Your task to perform on an android device: Open internet settings Image 0: 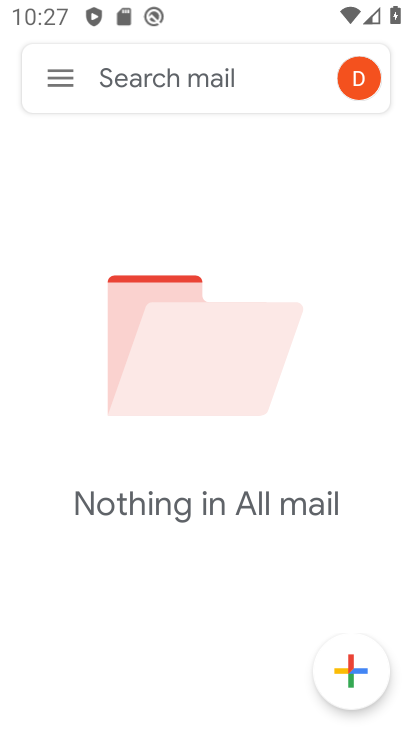
Step 0: press home button
Your task to perform on an android device: Open internet settings Image 1: 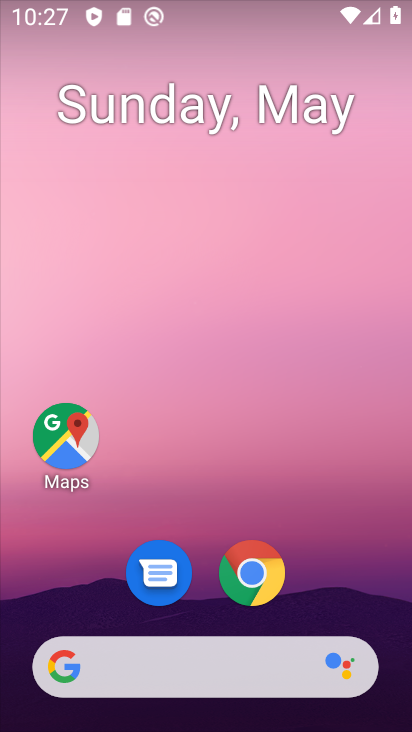
Step 1: click (301, 243)
Your task to perform on an android device: Open internet settings Image 2: 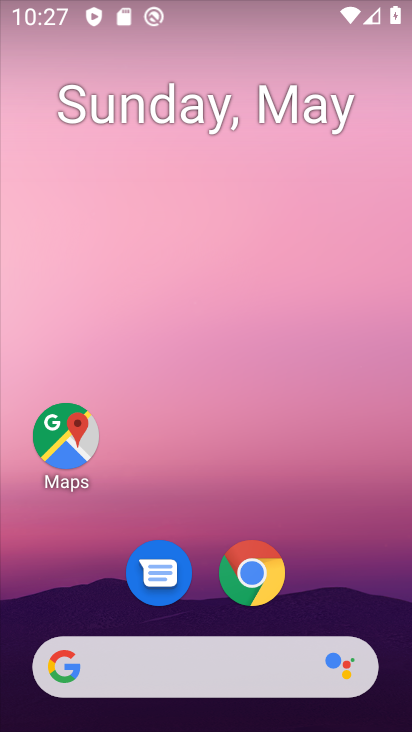
Step 2: drag from (370, 564) to (288, 136)
Your task to perform on an android device: Open internet settings Image 3: 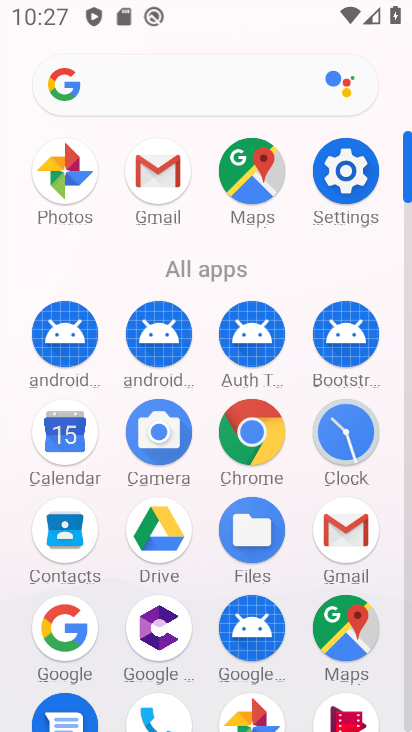
Step 3: click (334, 169)
Your task to perform on an android device: Open internet settings Image 4: 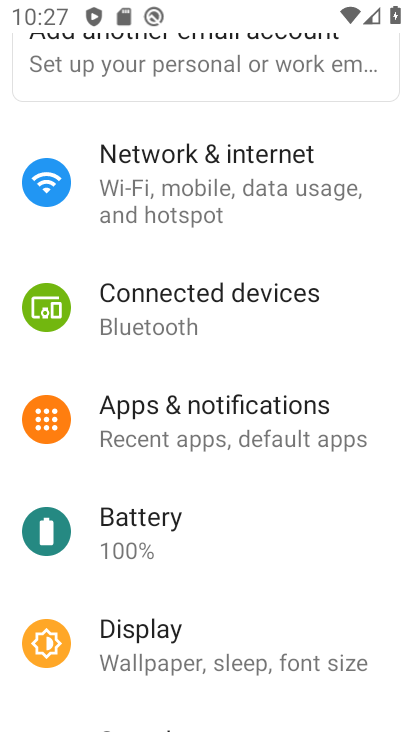
Step 4: click (316, 169)
Your task to perform on an android device: Open internet settings Image 5: 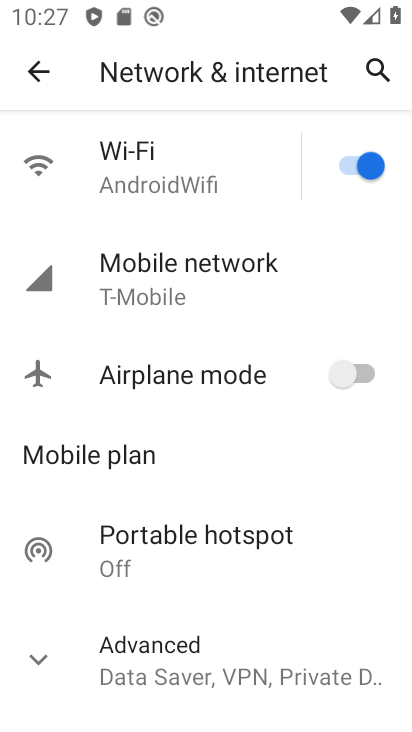
Step 5: task complete